Your task to perform on an android device: Go to calendar. Show me events next week Image 0: 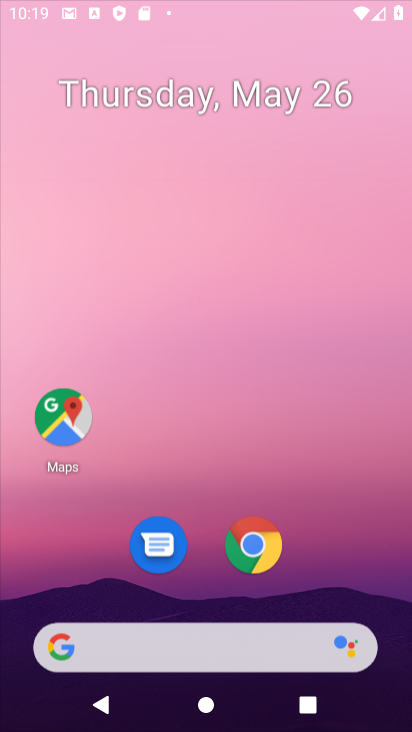
Step 0: press home button
Your task to perform on an android device: Go to calendar. Show me events next week Image 1: 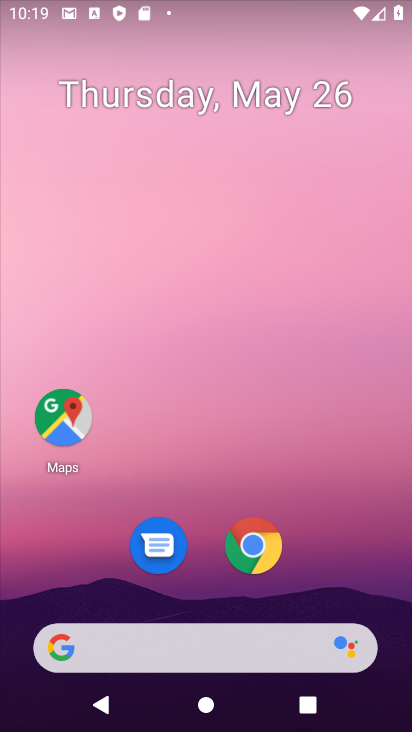
Step 1: drag from (336, 594) to (340, 191)
Your task to perform on an android device: Go to calendar. Show me events next week Image 2: 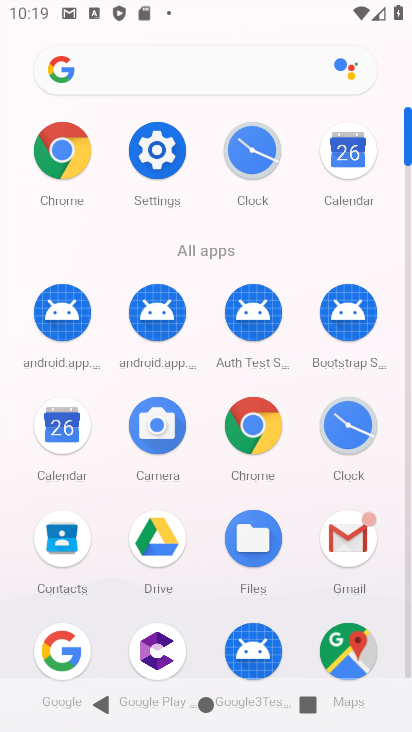
Step 2: click (359, 162)
Your task to perform on an android device: Go to calendar. Show me events next week Image 3: 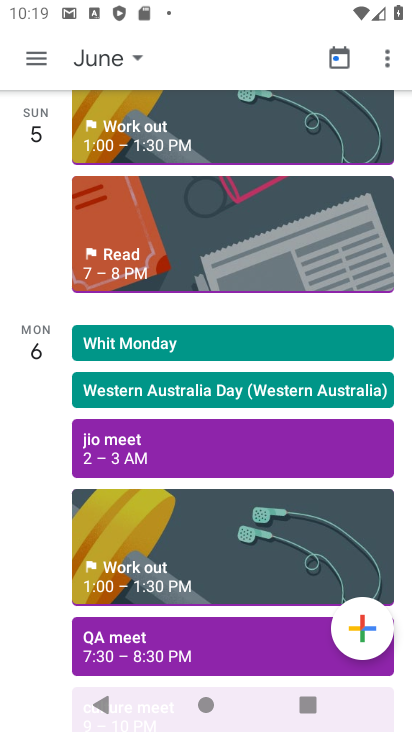
Step 3: click (44, 65)
Your task to perform on an android device: Go to calendar. Show me events next week Image 4: 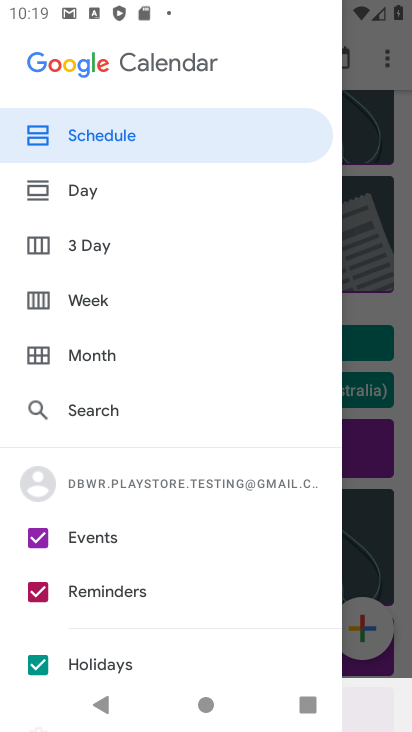
Step 4: click (105, 534)
Your task to perform on an android device: Go to calendar. Show me events next week Image 5: 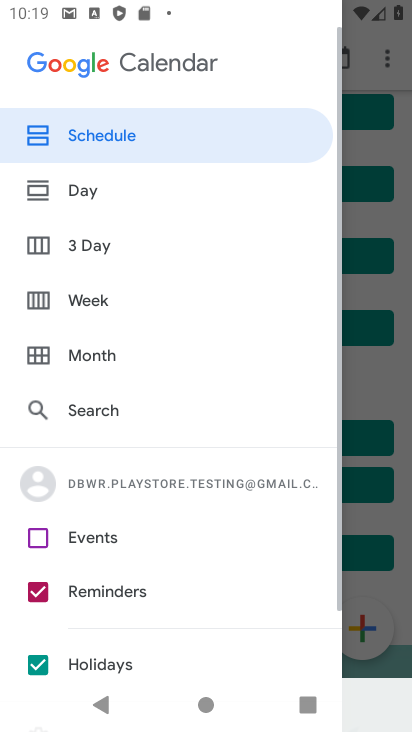
Step 5: click (96, 540)
Your task to perform on an android device: Go to calendar. Show me events next week Image 6: 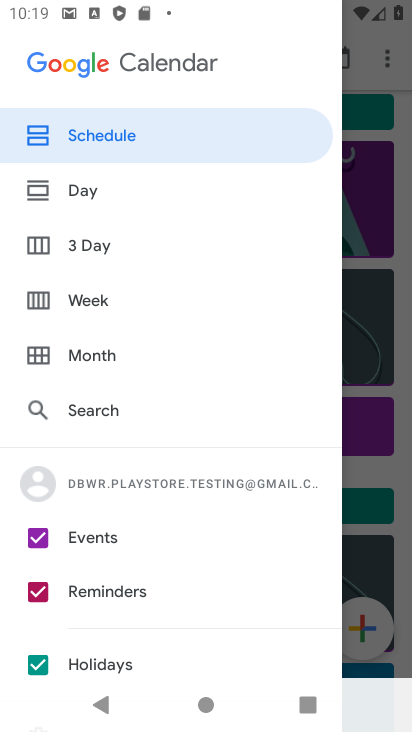
Step 6: click (366, 480)
Your task to perform on an android device: Go to calendar. Show me events next week Image 7: 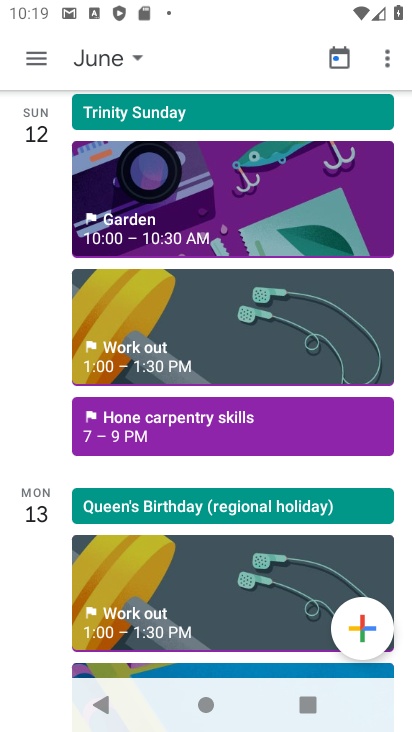
Step 7: task complete